Your task to perform on an android device: Go to wifi settings Image 0: 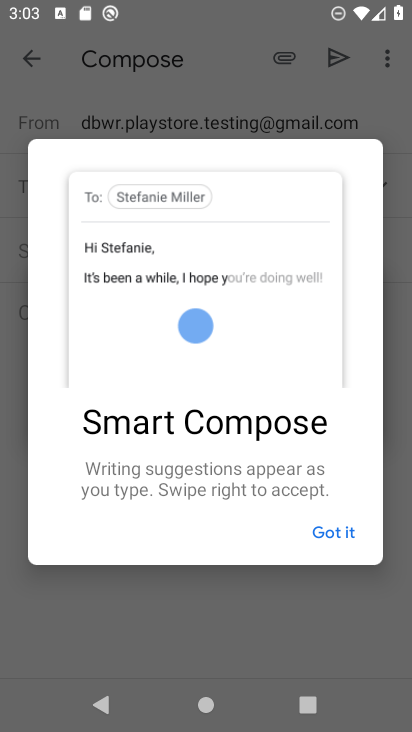
Step 0: press home button
Your task to perform on an android device: Go to wifi settings Image 1: 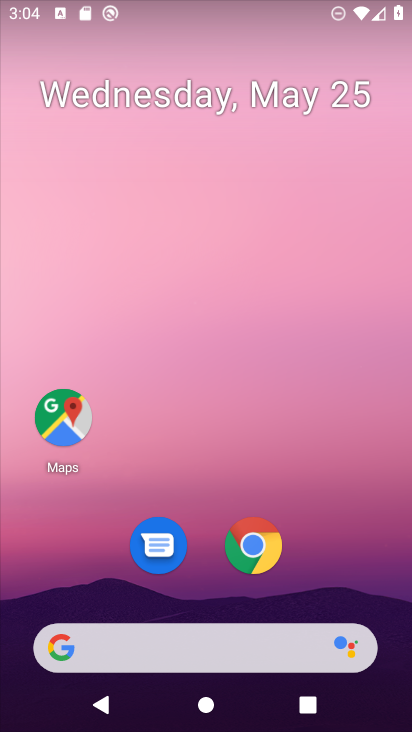
Step 1: drag from (350, 539) to (317, 58)
Your task to perform on an android device: Go to wifi settings Image 2: 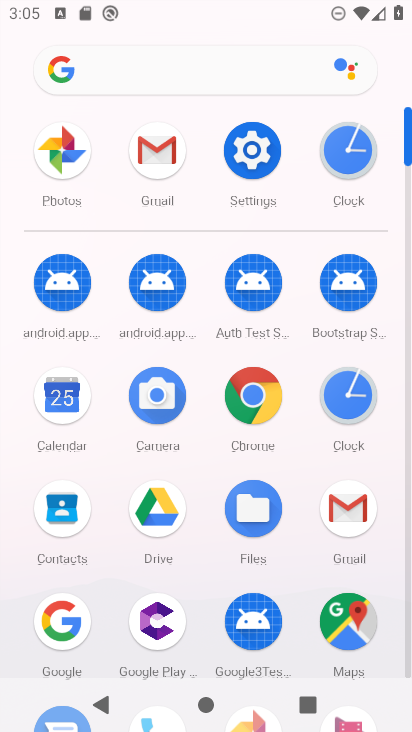
Step 2: click (266, 169)
Your task to perform on an android device: Go to wifi settings Image 3: 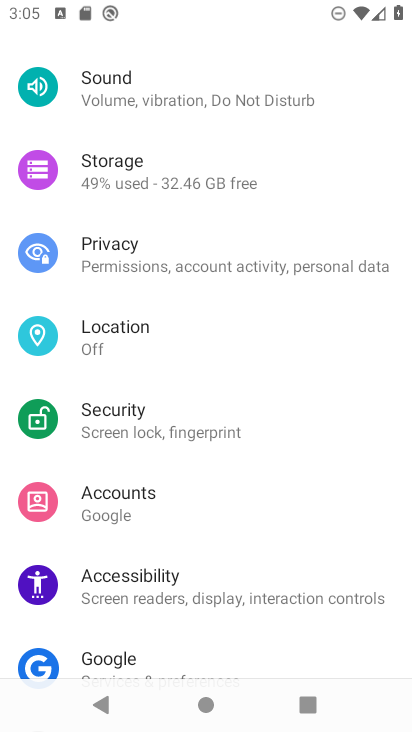
Step 3: task complete